Your task to perform on an android device: turn notification dots off Image 0: 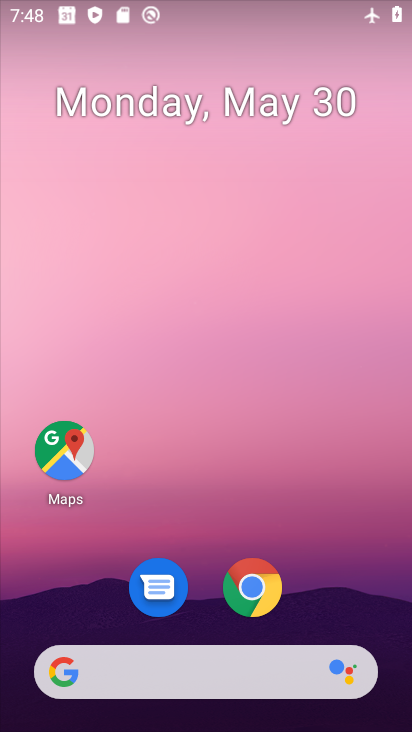
Step 0: drag from (346, 527) to (275, 0)
Your task to perform on an android device: turn notification dots off Image 1: 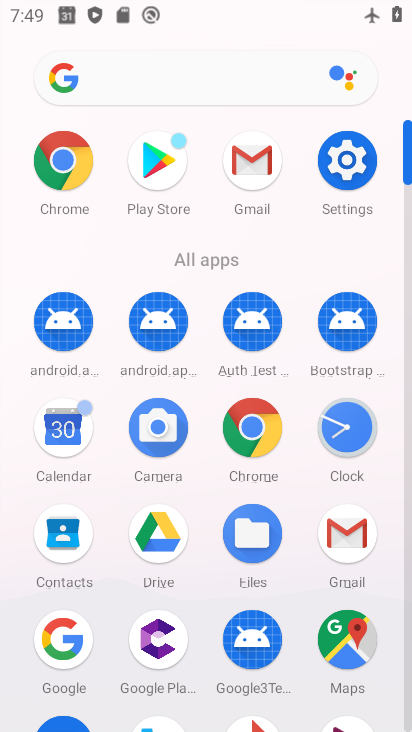
Step 1: click (349, 160)
Your task to perform on an android device: turn notification dots off Image 2: 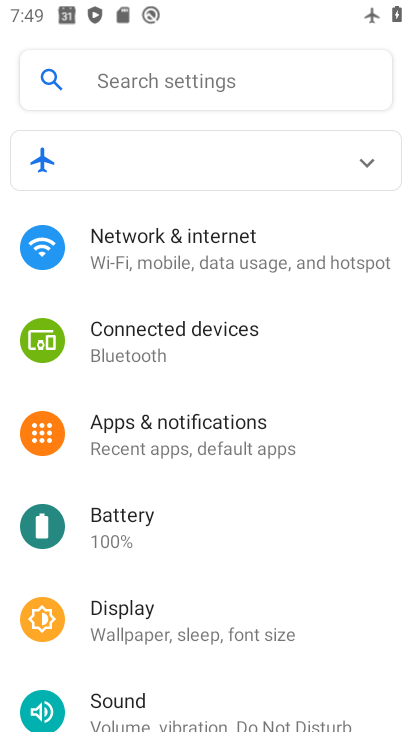
Step 2: drag from (297, 615) to (303, 195)
Your task to perform on an android device: turn notification dots off Image 3: 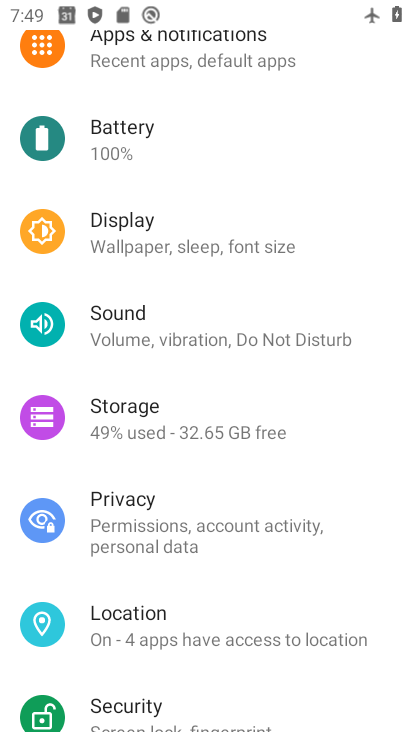
Step 3: click (243, 53)
Your task to perform on an android device: turn notification dots off Image 4: 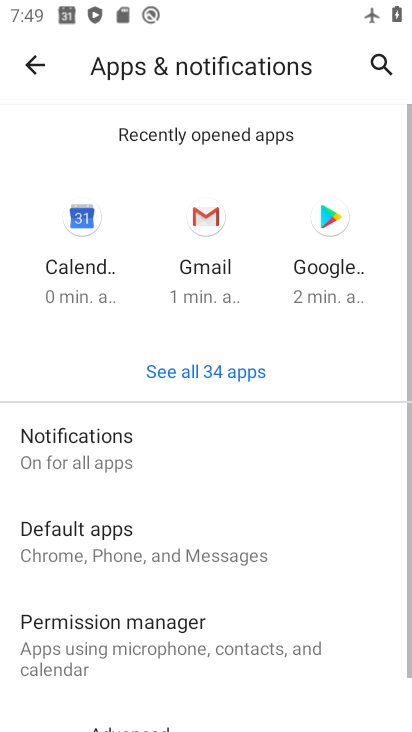
Step 4: drag from (317, 614) to (295, 155)
Your task to perform on an android device: turn notification dots off Image 5: 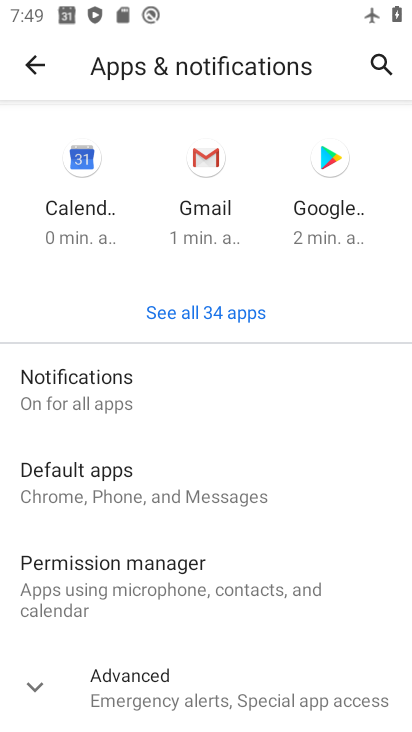
Step 5: click (53, 730)
Your task to perform on an android device: turn notification dots off Image 6: 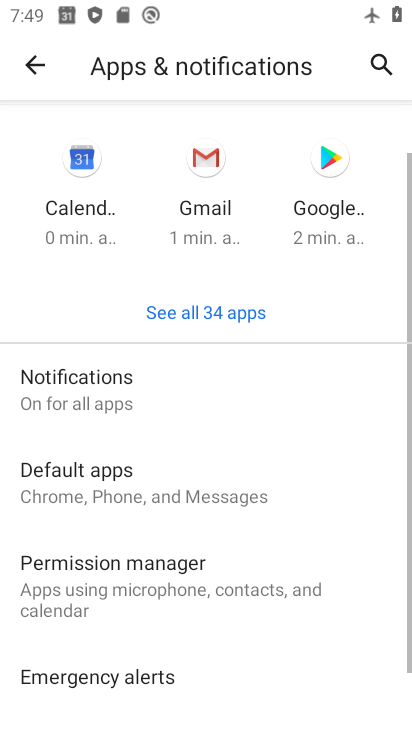
Step 6: drag from (342, 648) to (320, 246)
Your task to perform on an android device: turn notification dots off Image 7: 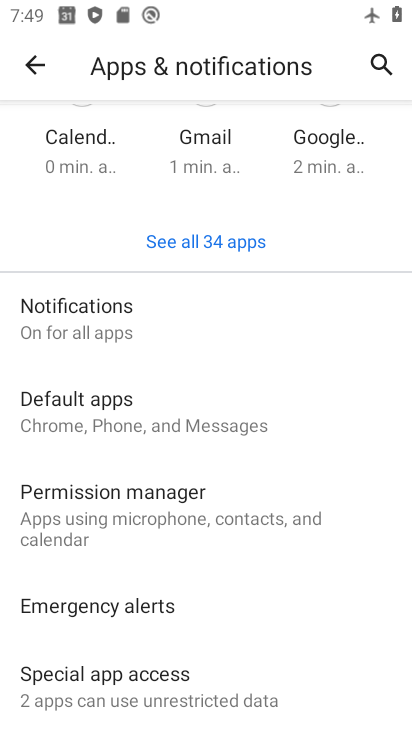
Step 7: click (114, 321)
Your task to perform on an android device: turn notification dots off Image 8: 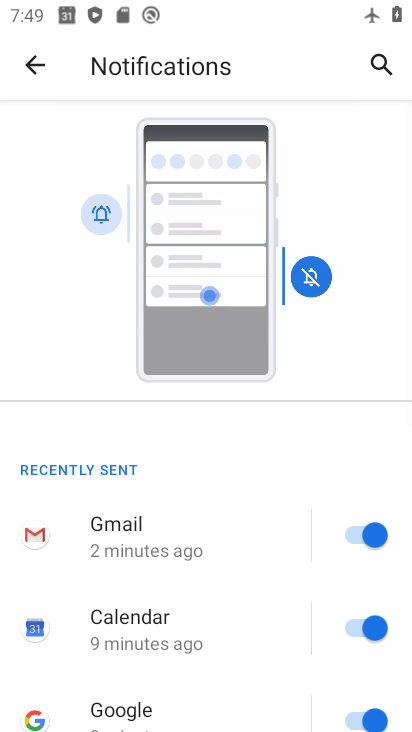
Step 8: drag from (267, 578) to (264, 106)
Your task to perform on an android device: turn notification dots off Image 9: 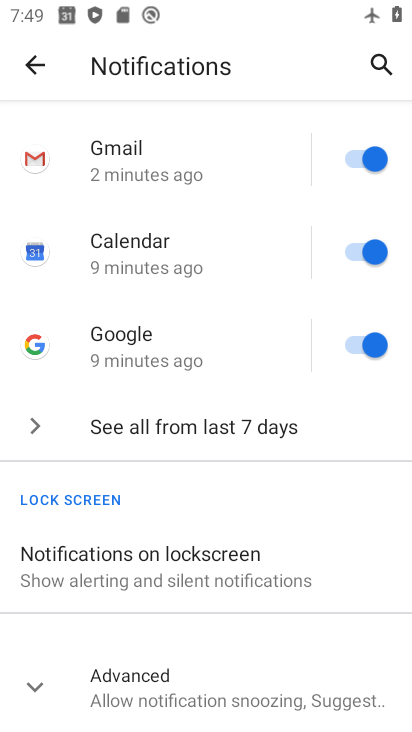
Step 9: drag from (226, 594) to (263, 185)
Your task to perform on an android device: turn notification dots off Image 10: 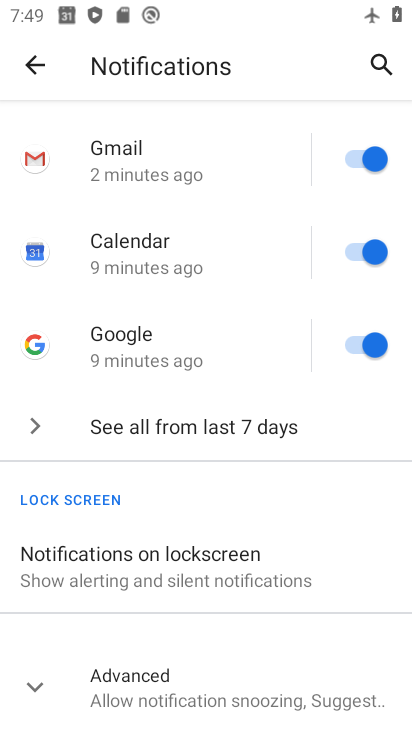
Step 10: click (36, 698)
Your task to perform on an android device: turn notification dots off Image 11: 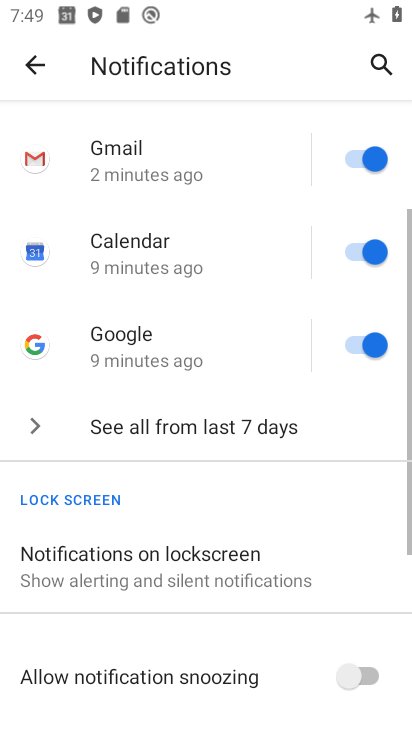
Step 11: drag from (222, 663) to (249, 216)
Your task to perform on an android device: turn notification dots off Image 12: 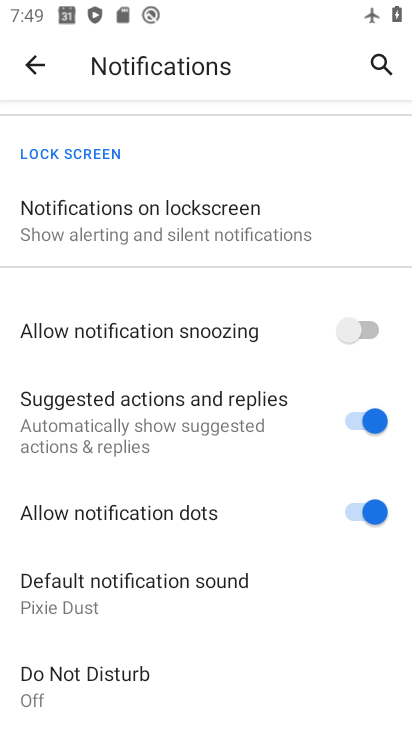
Step 12: click (372, 512)
Your task to perform on an android device: turn notification dots off Image 13: 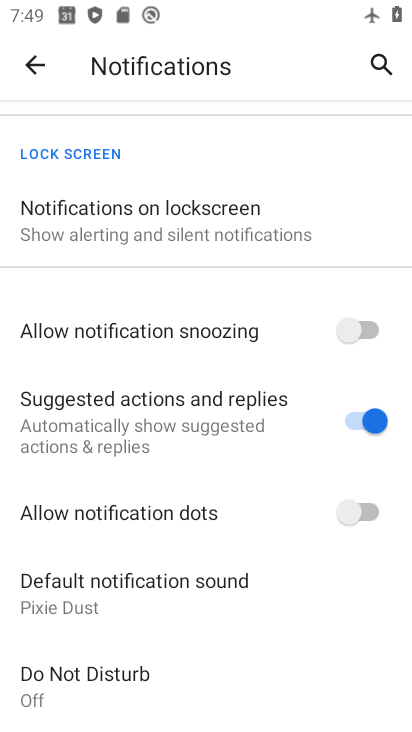
Step 13: task complete